Your task to perform on an android device: turn on priority inbox in the gmail app Image 0: 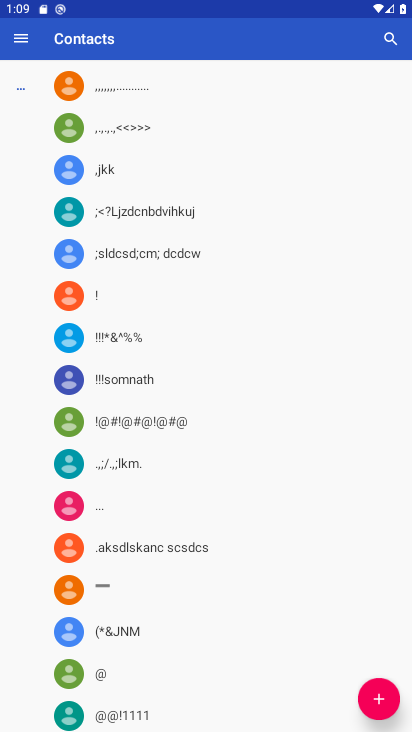
Step 0: press home button
Your task to perform on an android device: turn on priority inbox in the gmail app Image 1: 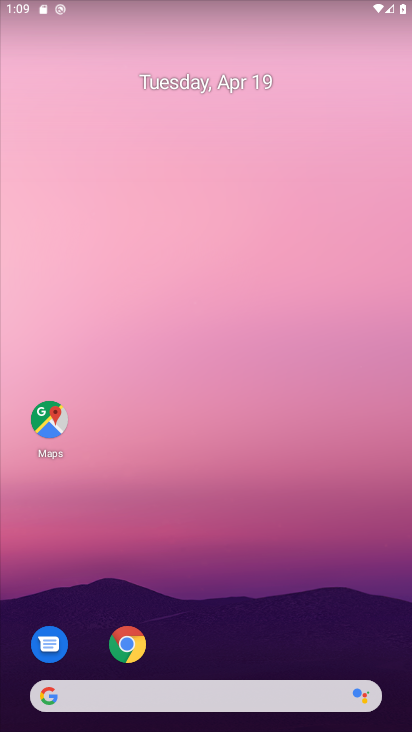
Step 1: drag from (269, 445) to (407, 28)
Your task to perform on an android device: turn on priority inbox in the gmail app Image 2: 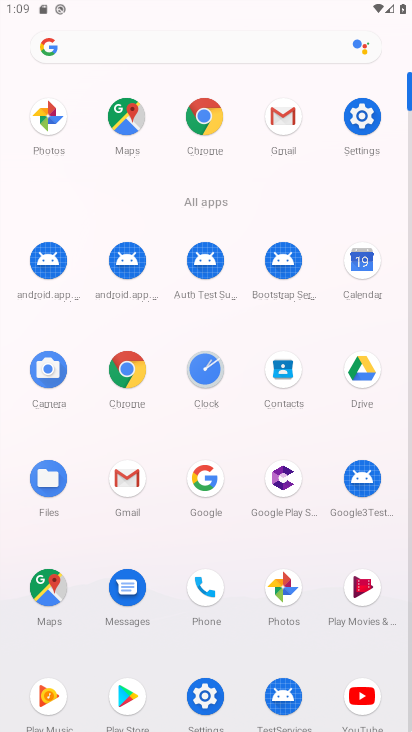
Step 2: click (294, 123)
Your task to perform on an android device: turn on priority inbox in the gmail app Image 3: 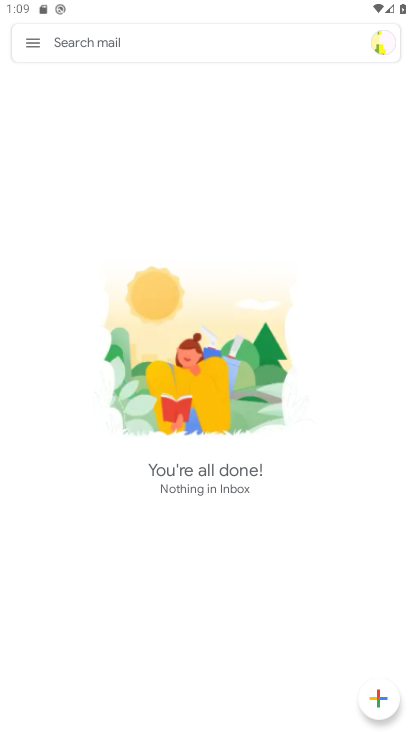
Step 3: click (30, 45)
Your task to perform on an android device: turn on priority inbox in the gmail app Image 4: 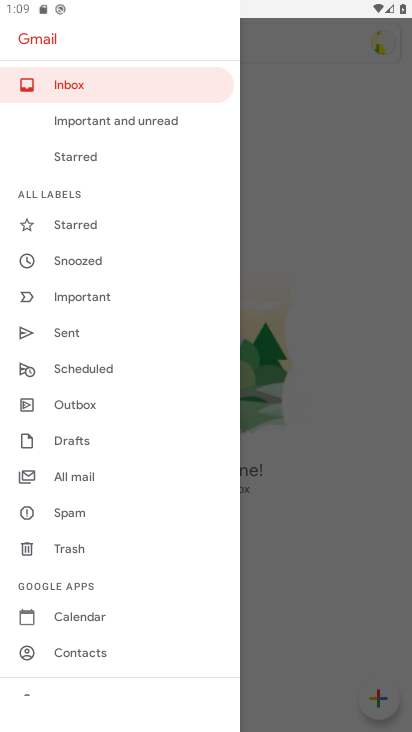
Step 4: drag from (65, 602) to (182, 205)
Your task to perform on an android device: turn on priority inbox in the gmail app Image 5: 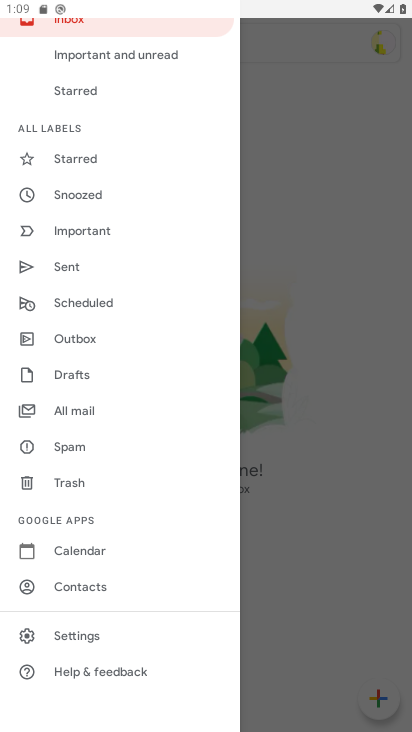
Step 5: click (73, 633)
Your task to perform on an android device: turn on priority inbox in the gmail app Image 6: 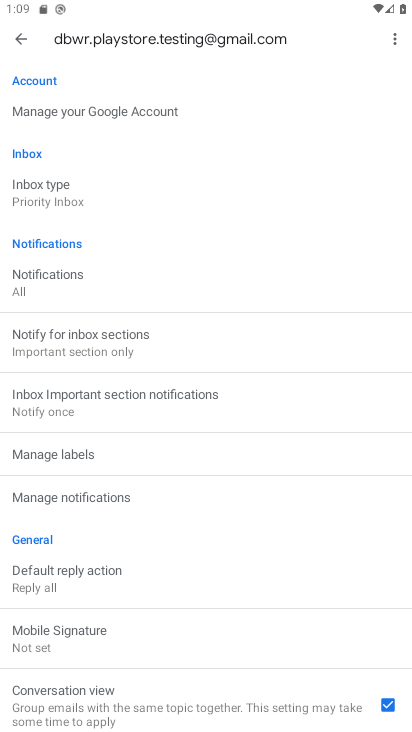
Step 6: click (53, 197)
Your task to perform on an android device: turn on priority inbox in the gmail app Image 7: 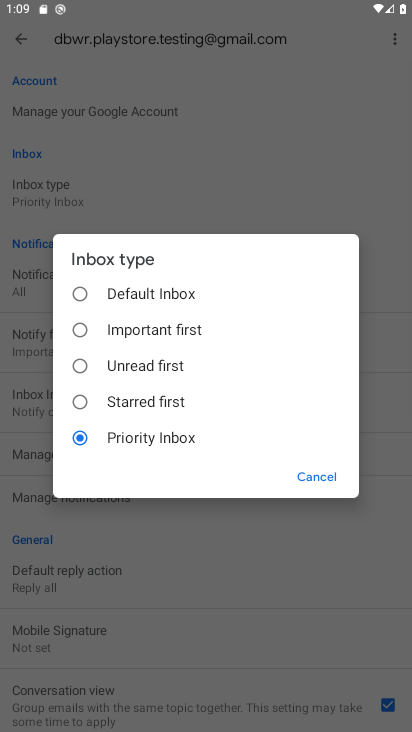
Step 7: task complete